Your task to perform on an android device: find which apps use the phone's location Image 0: 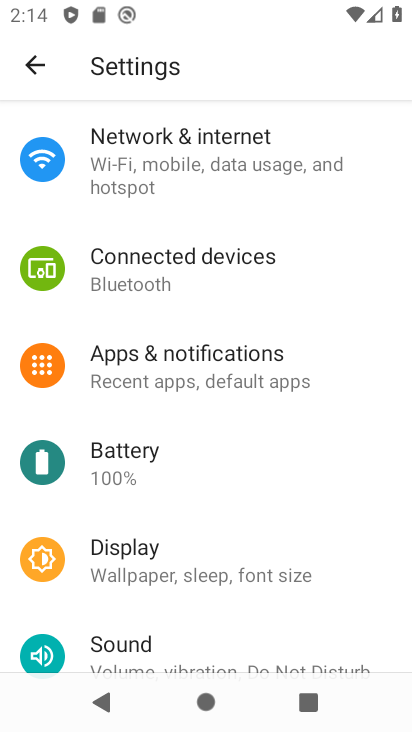
Step 0: press home button
Your task to perform on an android device: find which apps use the phone's location Image 1: 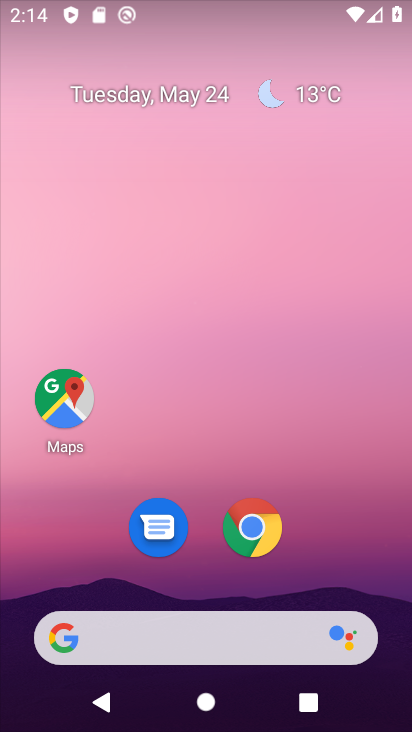
Step 1: drag from (218, 569) to (276, 136)
Your task to perform on an android device: find which apps use the phone's location Image 2: 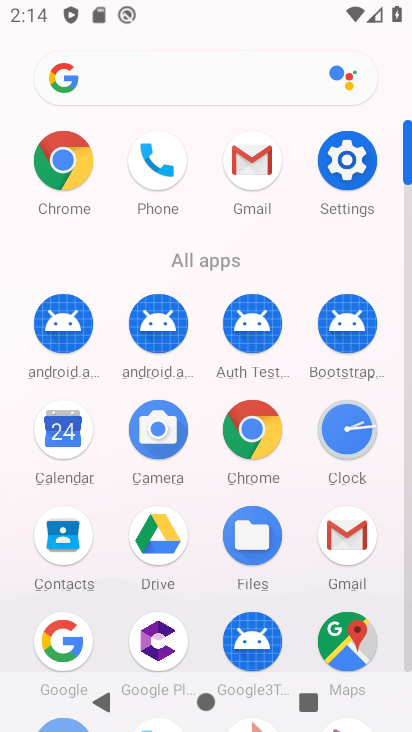
Step 2: click (340, 170)
Your task to perform on an android device: find which apps use the phone's location Image 3: 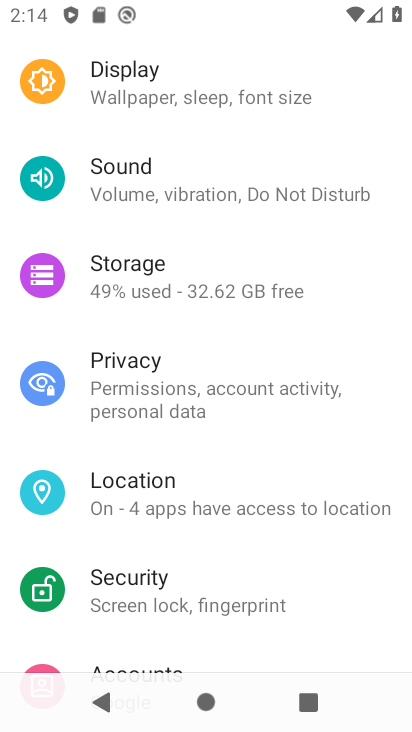
Step 3: click (132, 502)
Your task to perform on an android device: find which apps use the phone's location Image 4: 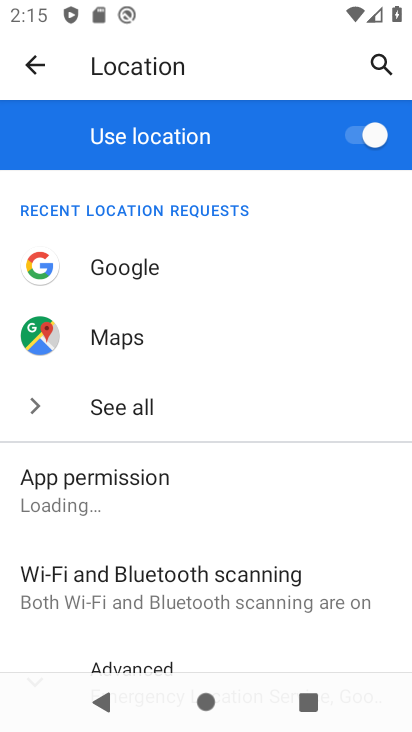
Step 4: click (49, 489)
Your task to perform on an android device: find which apps use the phone's location Image 5: 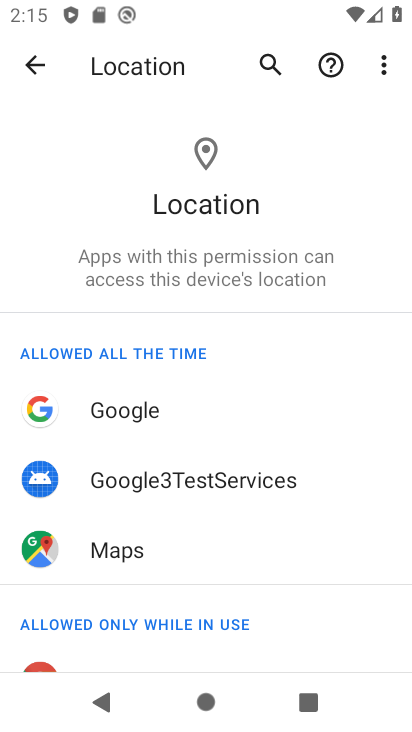
Step 5: task complete